Your task to perform on an android device: search for starred emails in the gmail app Image 0: 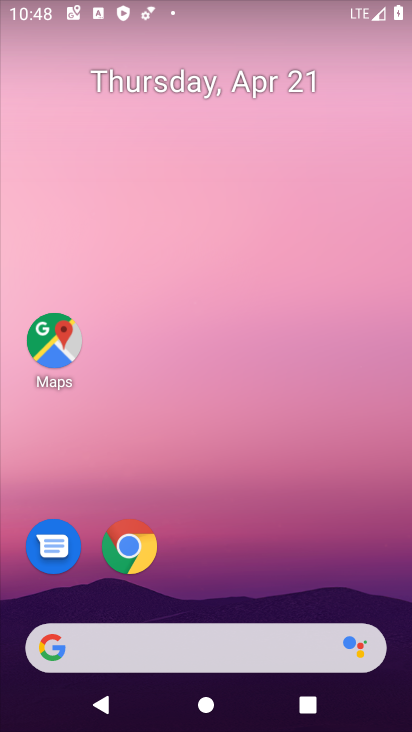
Step 0: drag from (402, 619) to (331, 176)
Your task to perform on an android device: search for starred emails in the gmail app Image 1: 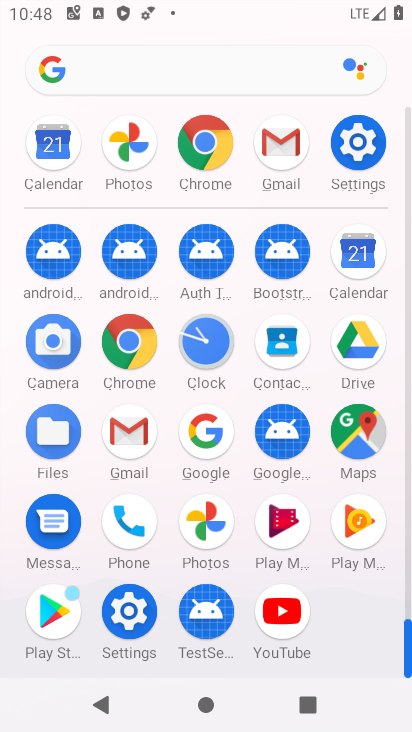
Step 1: click (124, 430)
Your task to perform on an android device: search for starred emails in the gmail app Image 2: 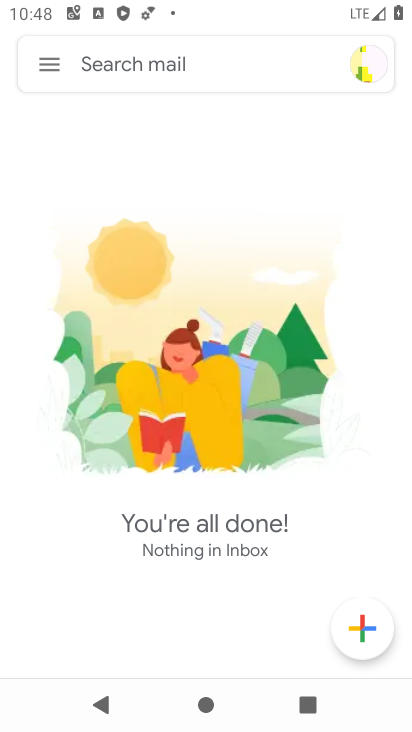
Step 2: click (46, 62)
Your task to perform on an android device: search for starred emails in the gmail app Image 3: 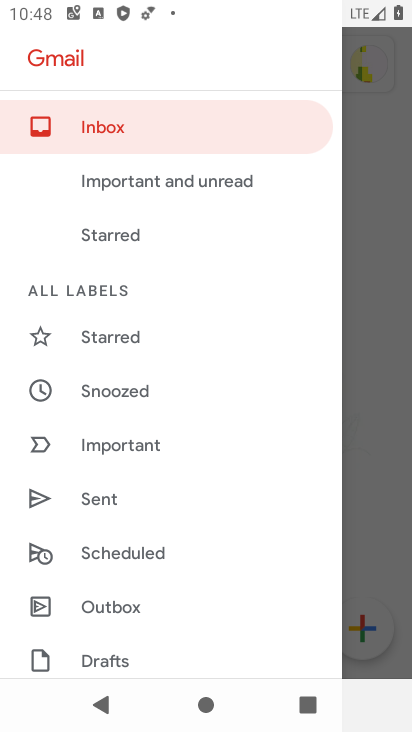
Step 3: click (107, 333)
Your task to perform on an android device: search for starred emails in the gmail app Image 4: 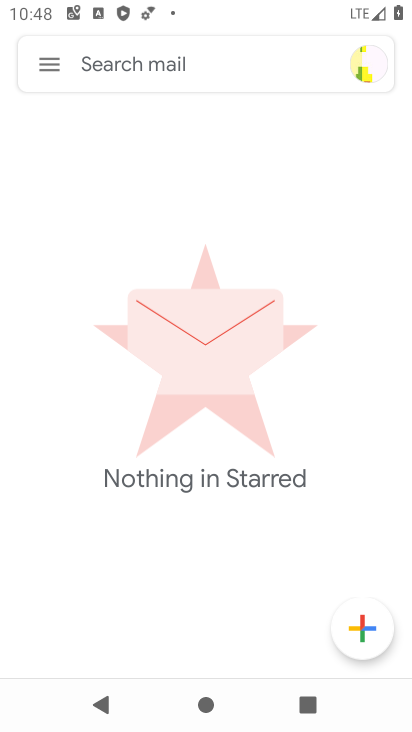
Step 4: task complete